Your task to perform on an android device: see tabs open on other devices in the chrome app Image 0: 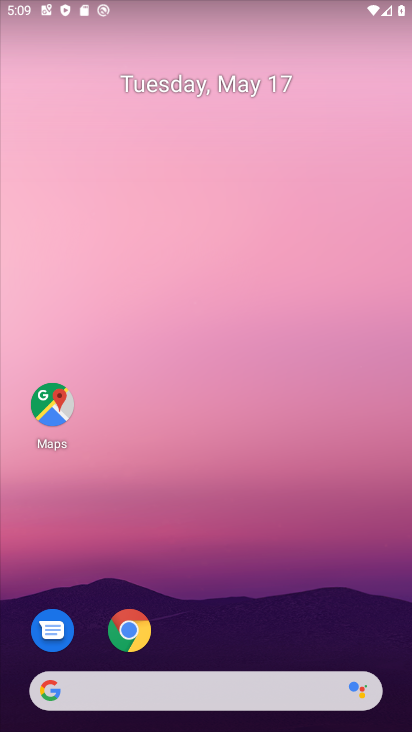
Step 0: click (136, 626)
Your task to perform on an android device: see tabs open on other devices in the chrome app Image 1: 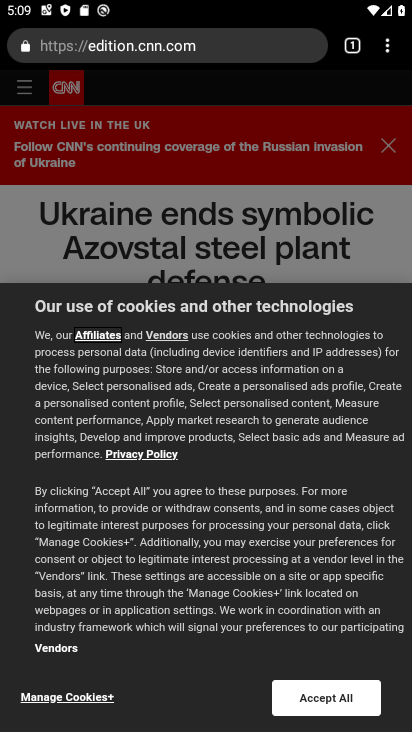
Step 1: task complete